Your task to perform on an android device: delete a single message in the gmail app Image 0: 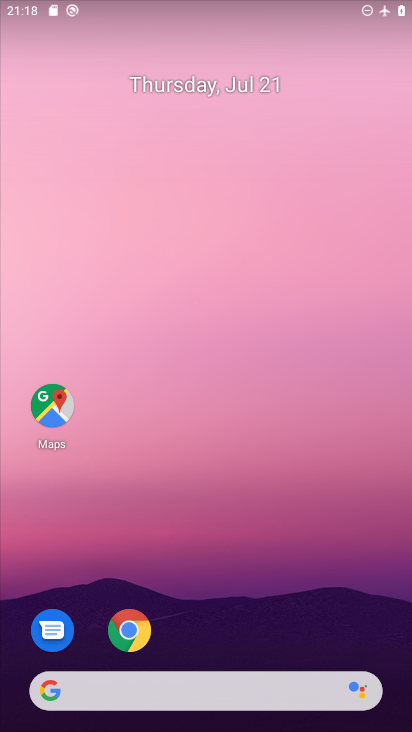
Step 0: drag from (288, 502) to (326, 0)
Your task to perform on an android device: delete a single message in the gmail app Image 1: 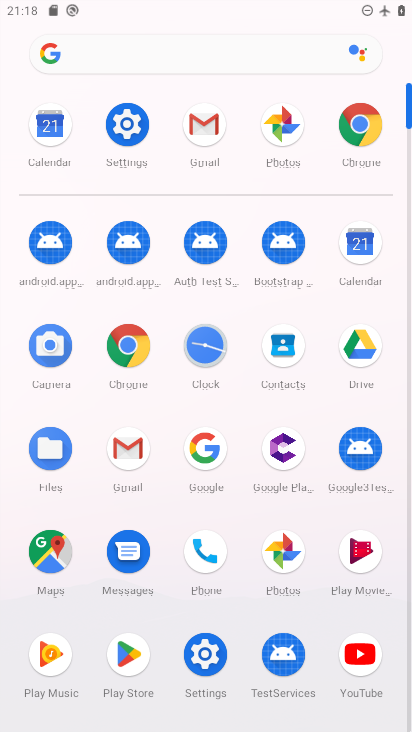
Step 1: click (138, 445)
Your task to perform on an android device: delete a single message in the gmail app Image 2: 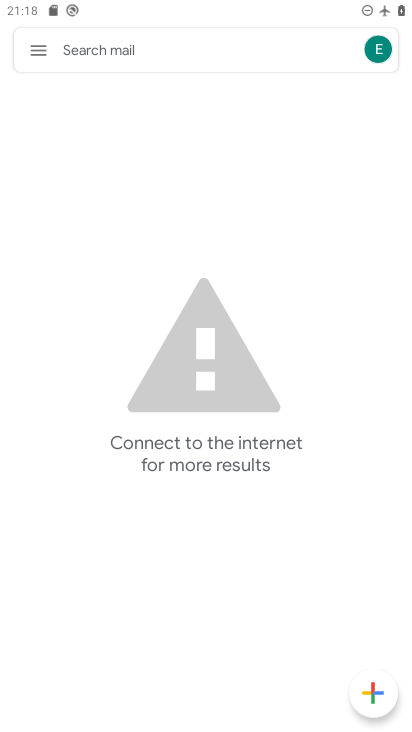
Step 2: click (40, 48)
Your task to perform on an android device: delete a single message in the gmail app Image 3: 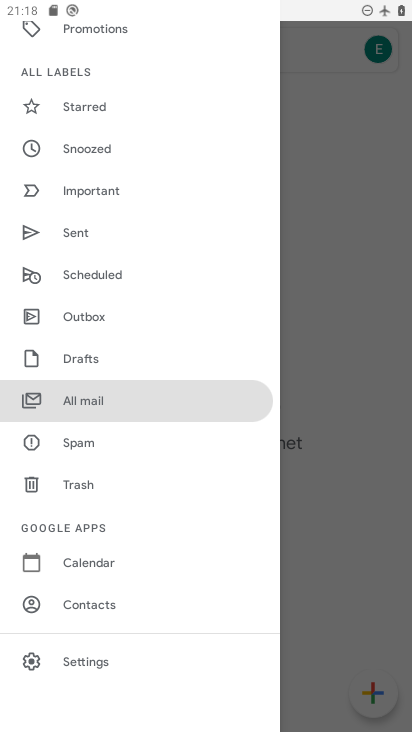
Step 3: drag from (110, 188) to (88, 547)
Your task to perform on an android device: delete a single message in the gmail app Image 4: 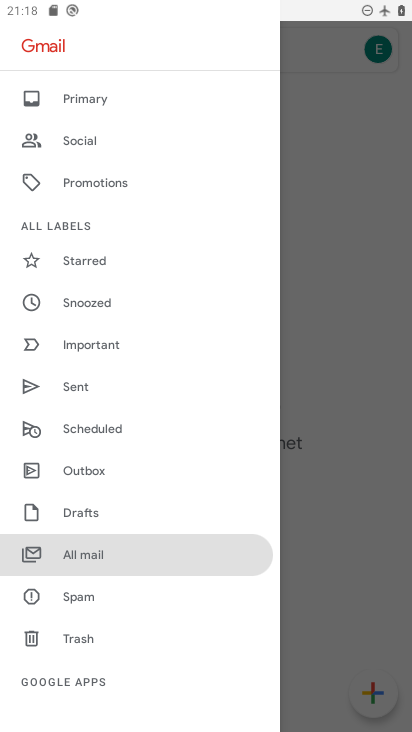
Step 4: click (347, 543)
Your task to perform on an android device: delete a single message in the gmail app Image 5: 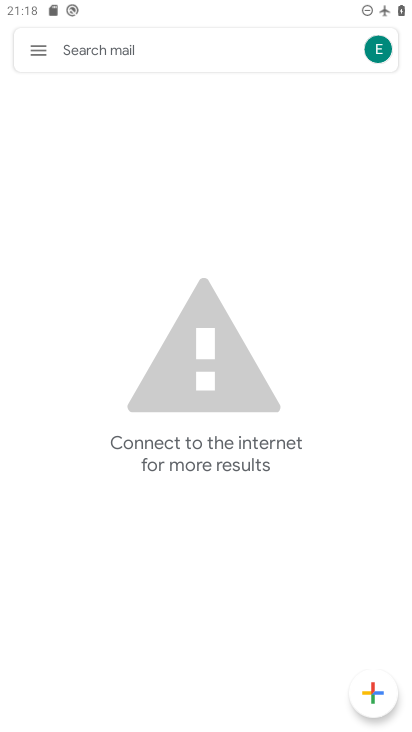
Step 5: task complete